Your task to perform on an android device: Go to battery settings Image 0: 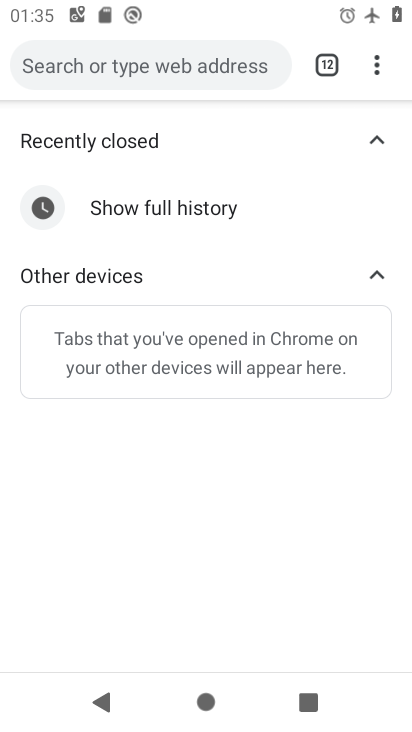
Step 0: press home button
Your task to perform on an android device: Go to battery settings Image 1: 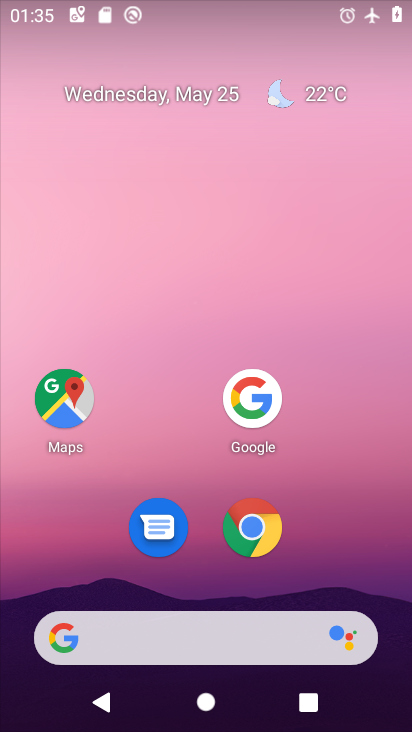
Step 1: drag from (167, 645) to (328, 112)
Your task to perform on an android device: Go to battery settings Image 2: 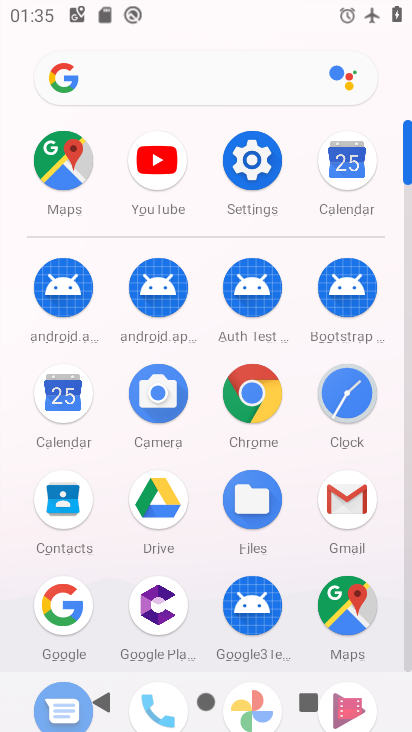
Step 2: click (256, 160)
Your task to perform on an android device: Go to battery settings Image 3: 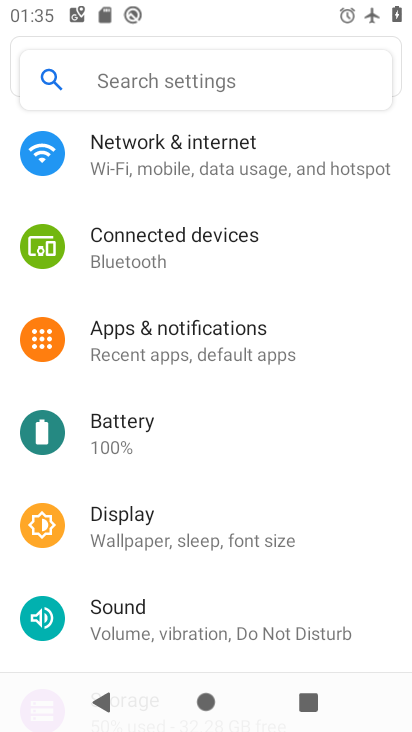
Step 3: click (138, 437)
Your task to perform on an android device: Go to battery settings Image 4: 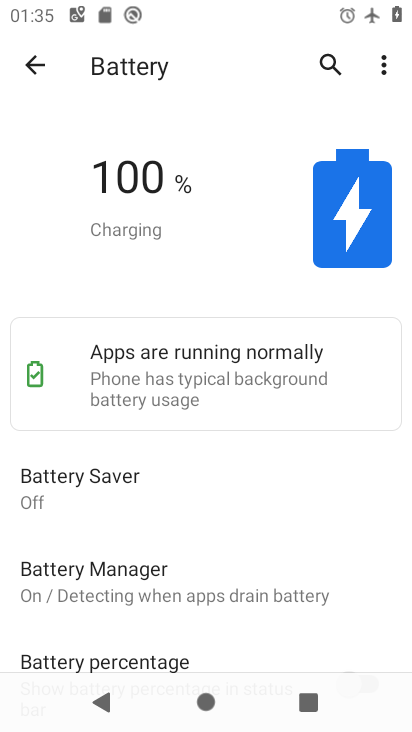
Step 4: task complete